Your task to perform on an android device: create a new album in the google photos Image 0: 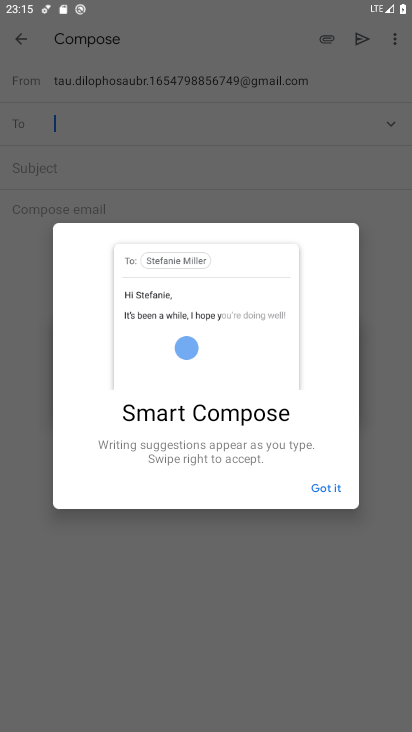
Step 0: press home button
Your task to perform on an android device: create a new album in the google photos Image 1: 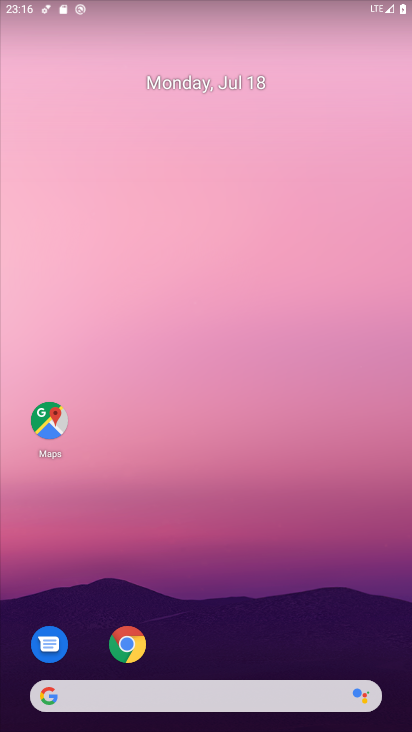
Step 1: drag from (327, 545) to (312, 106)
Your task to perform on an android device: create a new album in the google photos Image 2: 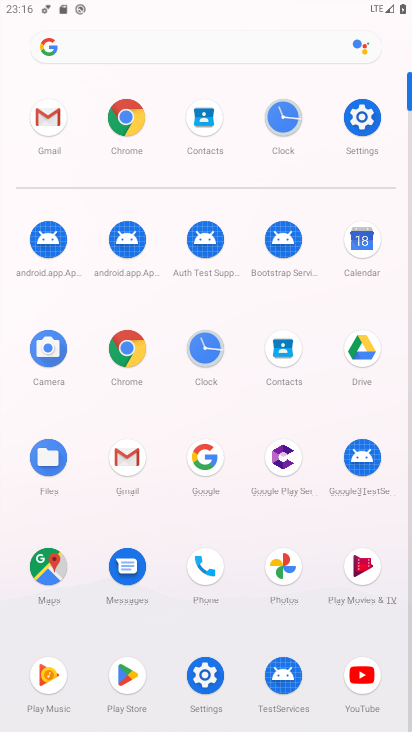
Step 2: click (287, 570)
Your task to perform on an android device: create a new album in the google photos Image 3: 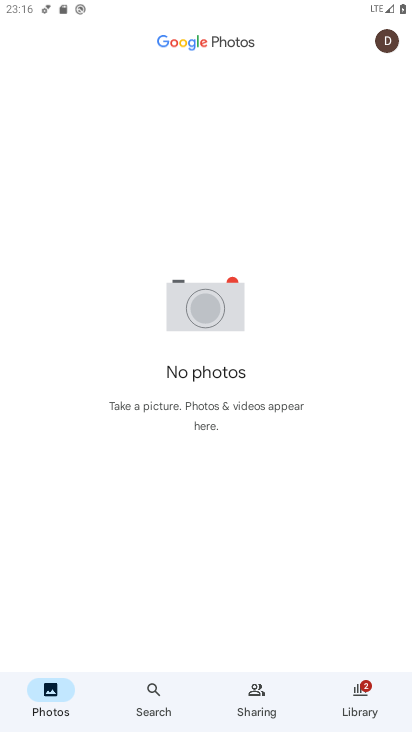
Step 3: click (359, 707)
Your task to perform on an android device: create a new album in the google photos Image 4: 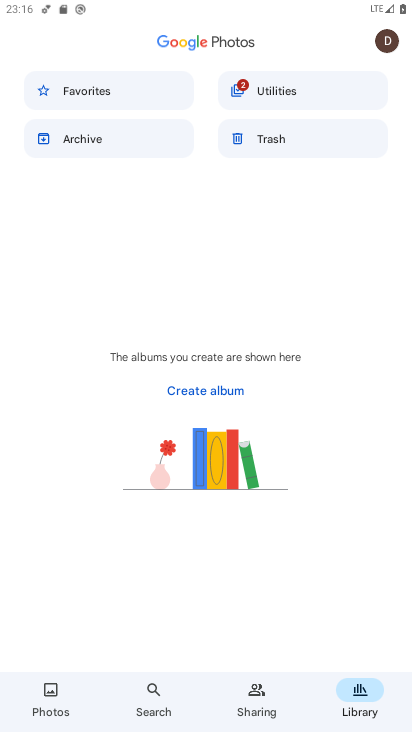
Step 4: click (222, 389)
Your task to perform on an android device: create a new album in the google photos Image 5: 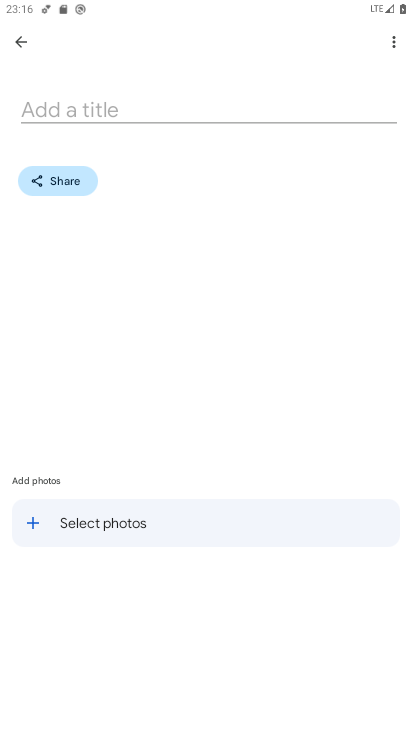
Step 5: click (125, 104)
Your task to perform on an android device: create a new album in the google photos Image 6: 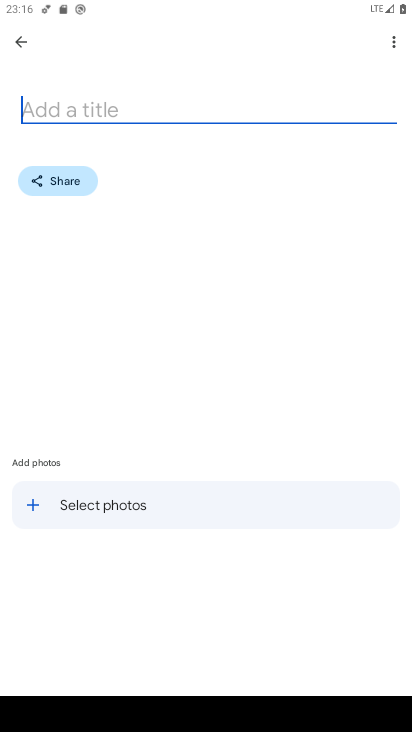
Step 6: type "fav"
Your task to perform on an android device: create a new album in the google photos Image 7: 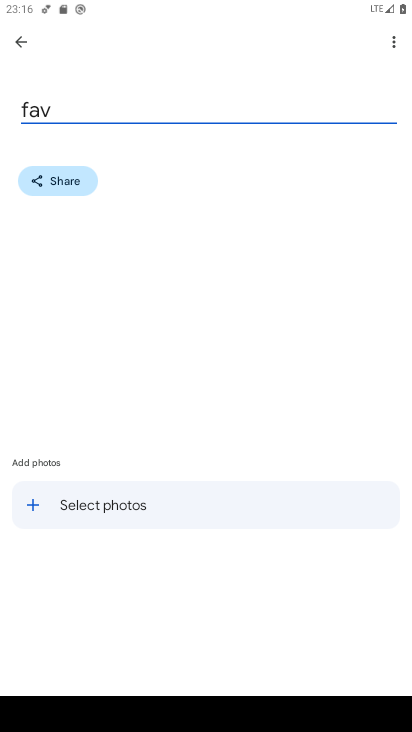
Step 7: click (113, 509)
Your task to perform on an android device: create a new album in the google photos Image 8: 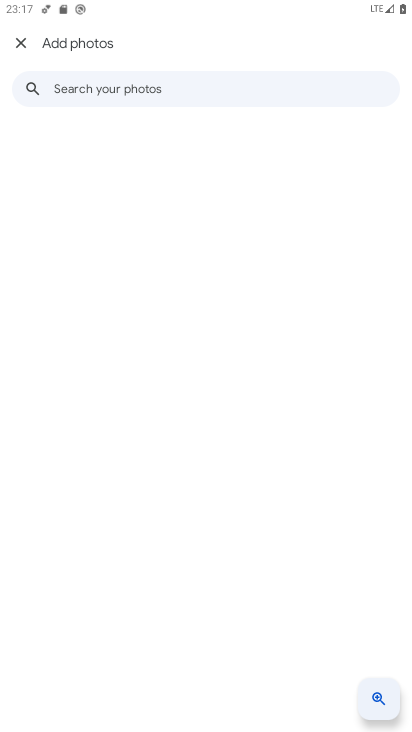
Step 8: task complete